Your task to perform on an android device: turn on improve location accuracy Image 0: 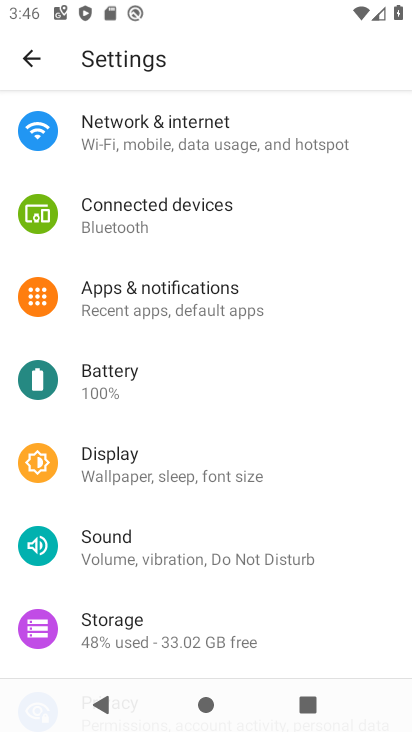
Step 0: drag from (173, 661) to (263, 157)
Your task to perform on an android device: turn on improve location accuracy Image 1: 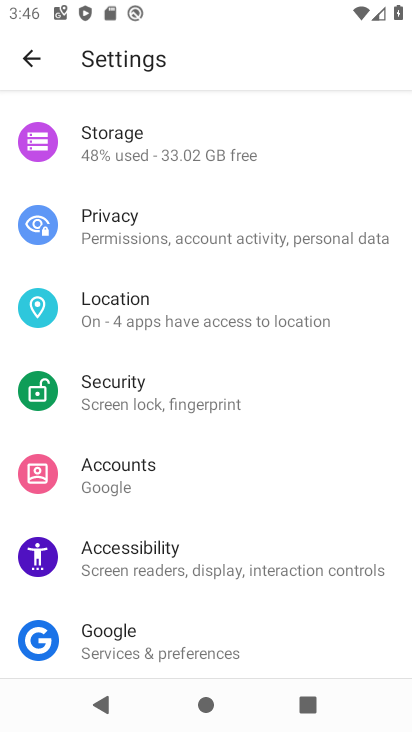
Step 1: click (124, 309)
Your task to perform on an android device: turn on improve location accuracy Image 2: 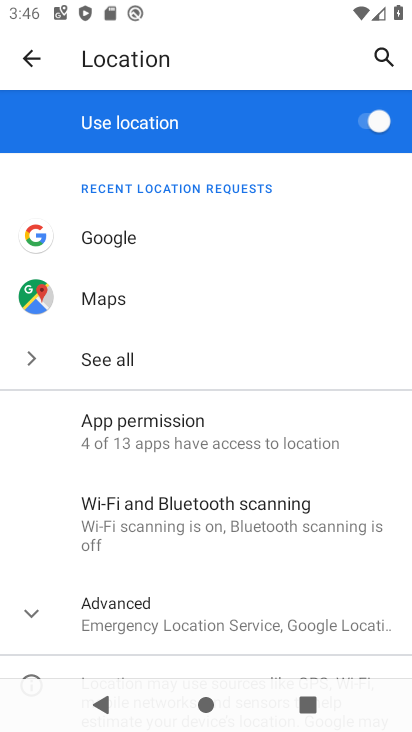
Step 2: click (184, 612)
Your task to perform on an android device: turn on improve location accuracy Image 3: 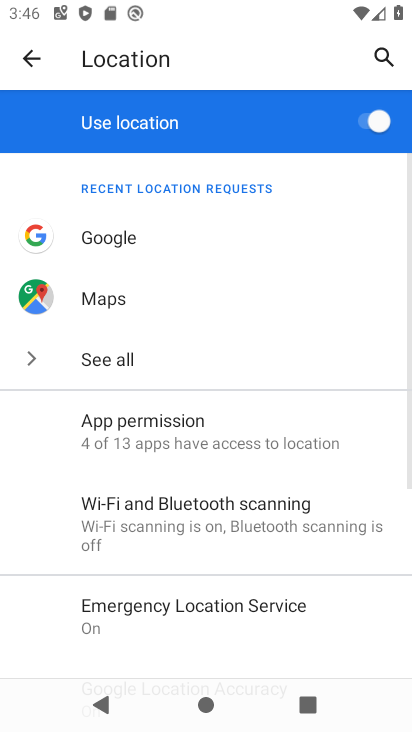
Step 3: drag from (171, 610) to (264, 299)
Your task to perform on an android device: turn on improve location accuracy Image 4: 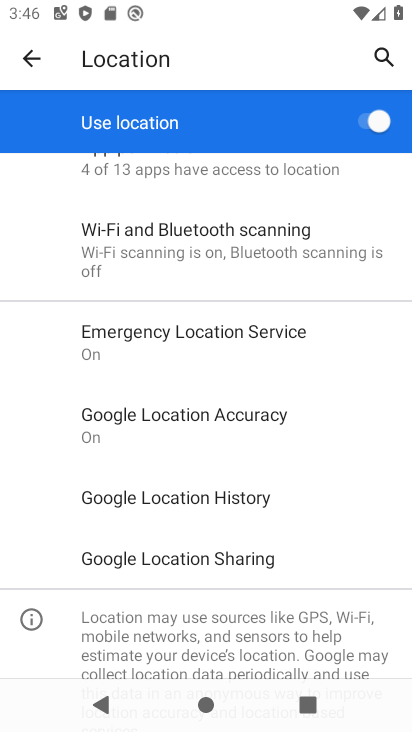
Step 4: click (211, 427)
Your task to perform on an android device: turn on improve location accuracy Image 5: 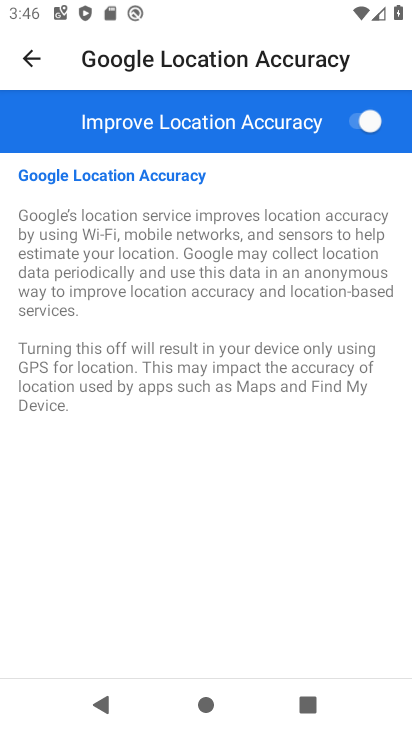
Step 5: task complete